Your task to perform on an android device: empty trash in the gmail app Image 0: 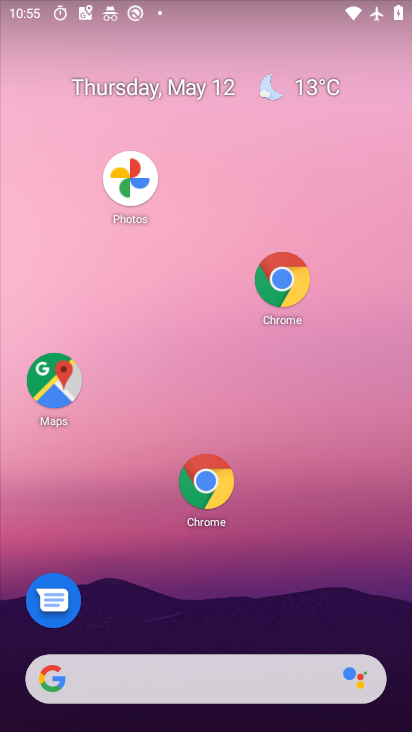
Step 0: drag from (399, 564) to (232, 2)
Your task to perform on an android device: empty trash in the gmail app Image 1: 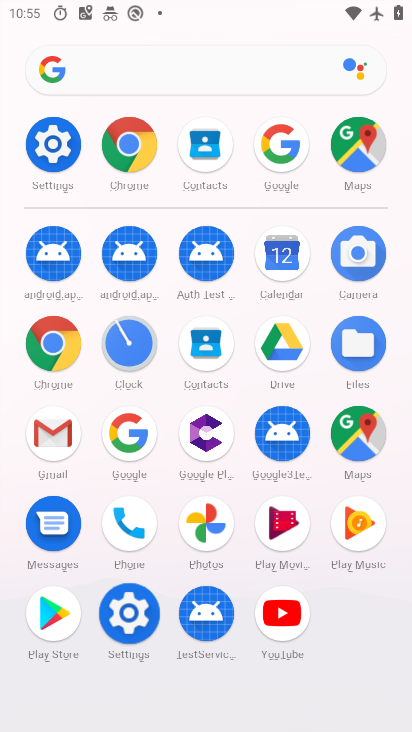
Step 1: click (44, 437)
Your task to perform on an android device: empty trash in the gmail app Image 2: 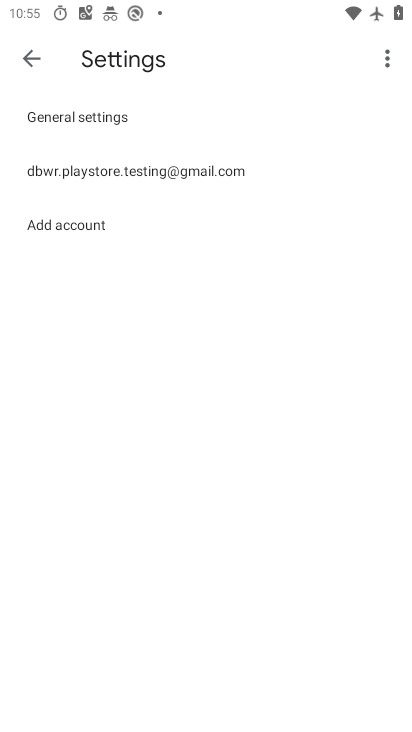
Step 2: click (108, 167)
Your task to perform on an android device: empty trash in the gmail app Image 3: 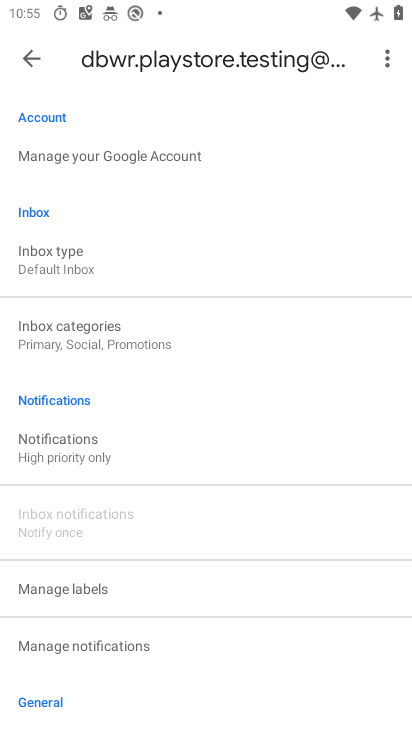
Step 3: click (23, 56)
Your task to perform on an android device: empty trash in the gmail app Image 4: 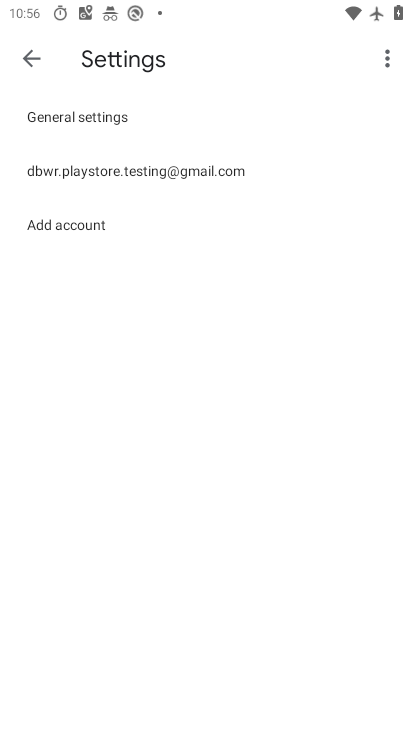
Step 4: click (27, 59)
Your task to perform on an android device: empty trash in the gmail app Image 5: 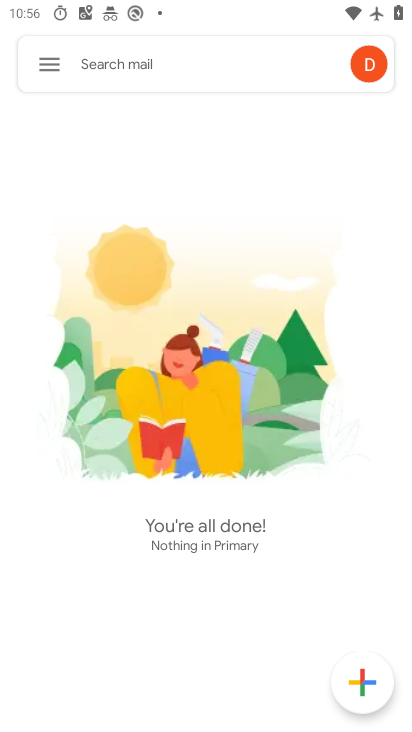
Step 5: click (55, 69)
Your task to perform on an android device: empty trash in the gmail app Image 6: 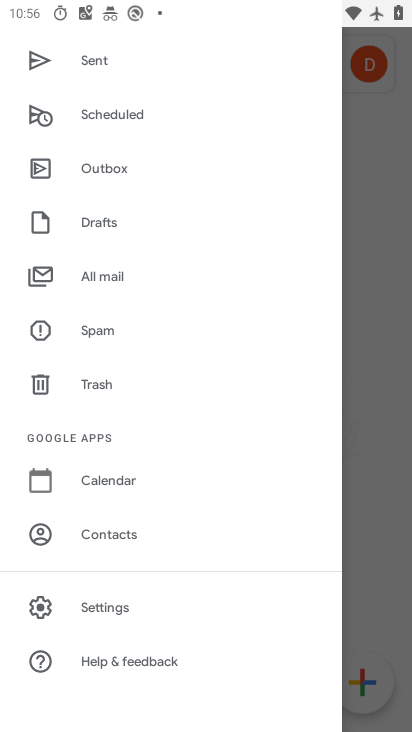
Step 6: click (87, 383)
Your task to perform on an android device: empty trash in the gmail app Image 7: 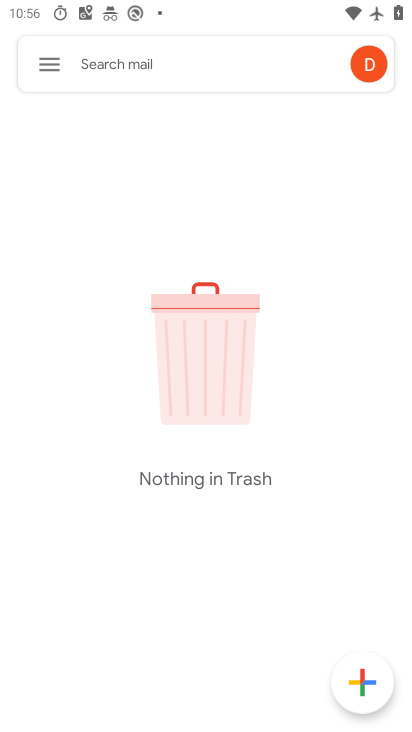
Step 7: task complete